Your task to perform on an android device: set the stopwatch Image 0: 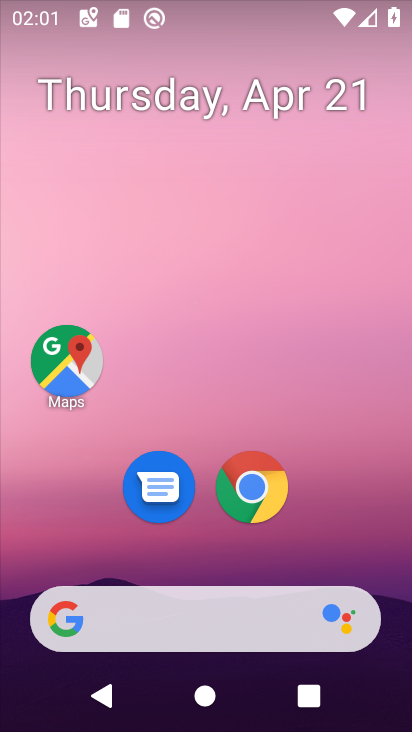
Step 0: drag from (211, 563) to (232, 271)
Your task to perform on an android device: set the stopwatch Image 1: 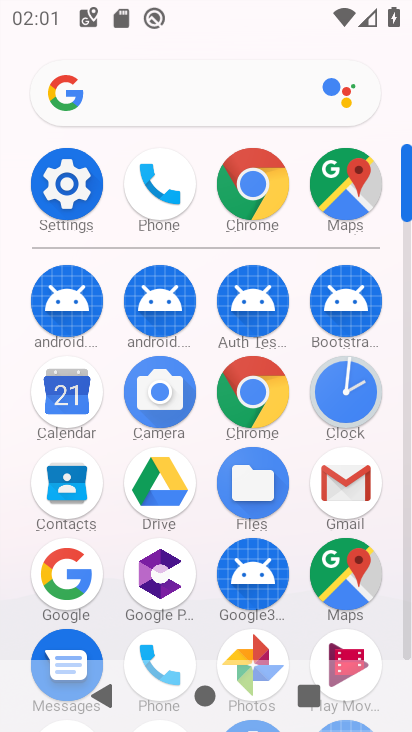
Step 1: click (352, 388)
Your task to perform on an android device: set the stopwatch Image 2: 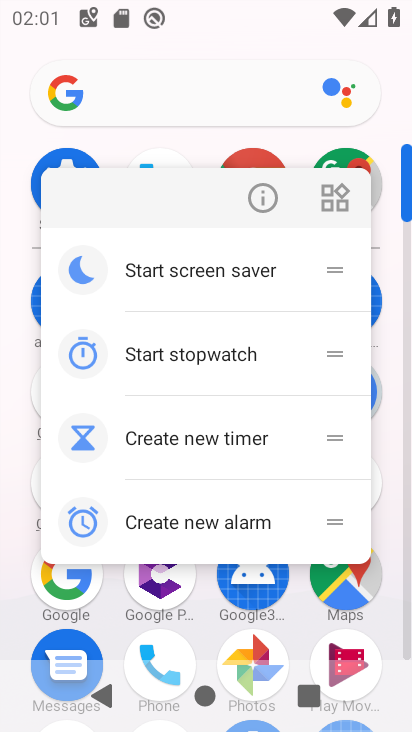
Step 2: click (263, 198)
Your task to perform on an android device: set the stopwatch Image 3: 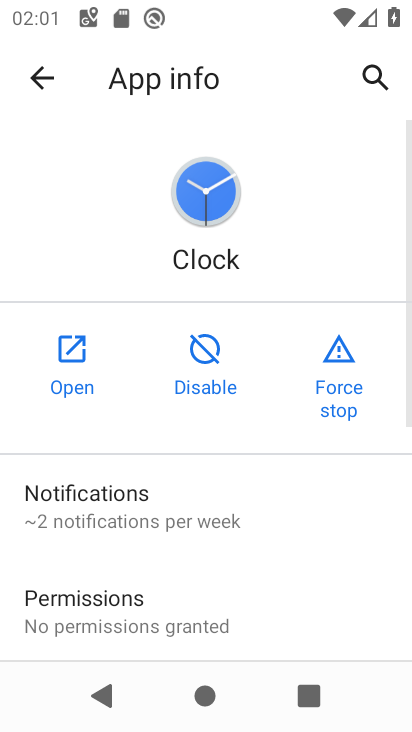
Step 3: click (90, 346)
Your task to perform on an android device: set the stopwatch Image 4: 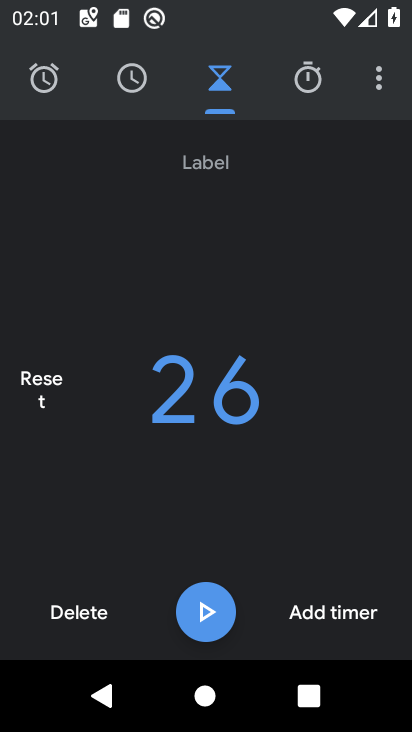
Step 4: click (321, 93)
Your task to perform on an android device: set the stopwatch Image 5: 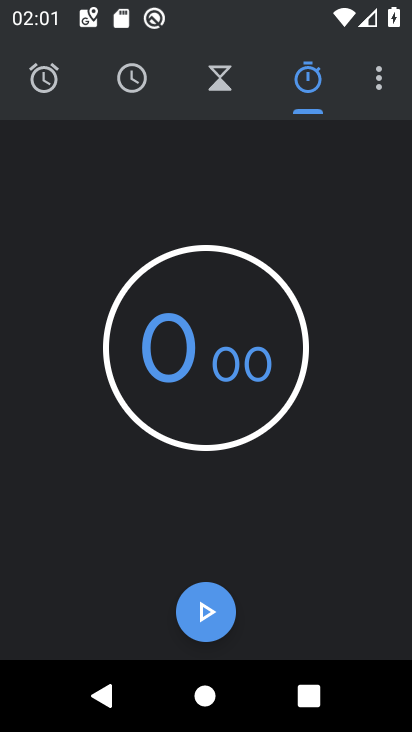
Step 5: drag from (246, 564) to (253, 348)
Your task to perform on an android device: set the stopwatch Image 6: 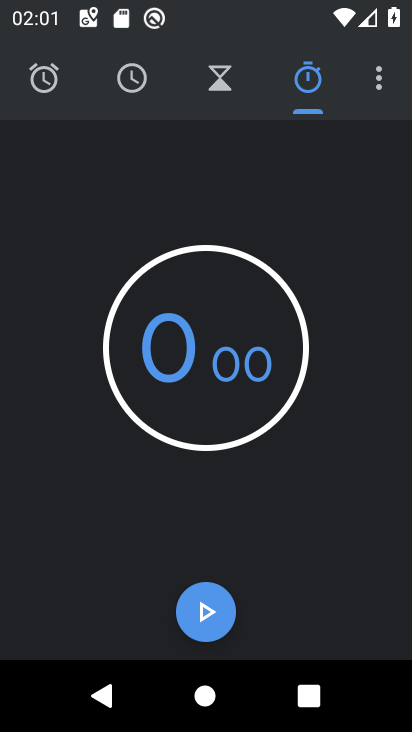
Step 6: click (207, 606)
Your task to perform on an android device: set the stopwatch Image 7: 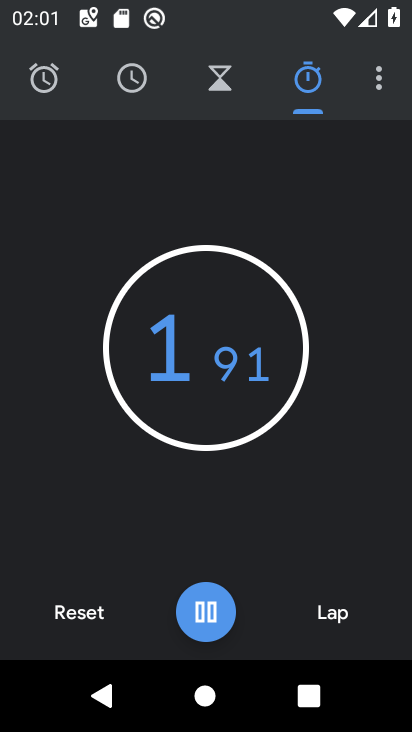
Step 7: drag from (264, 519) to (322, 352)
Your task to perform on an android device: set the stopwatch Image 8: 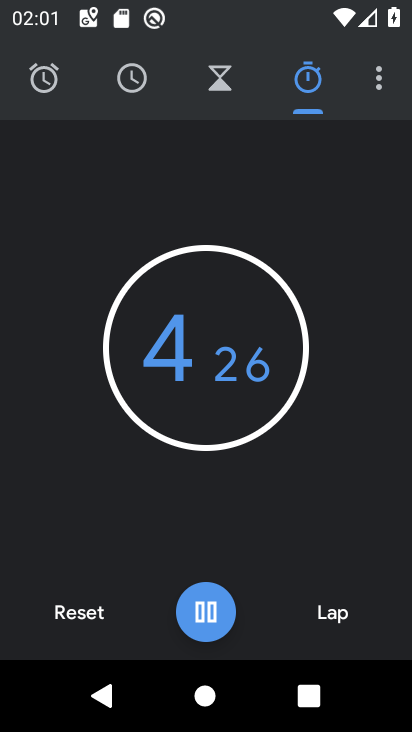
Step 8: click (277, 327)
Your task to perform on an android device: set the stopwatch Image 9: 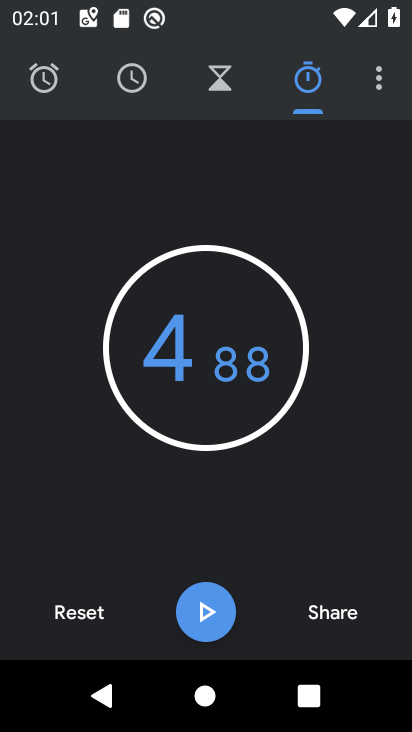
Step 9: click (194, 624)
Your task to perform on an android device: set the stopwatch Image 10: 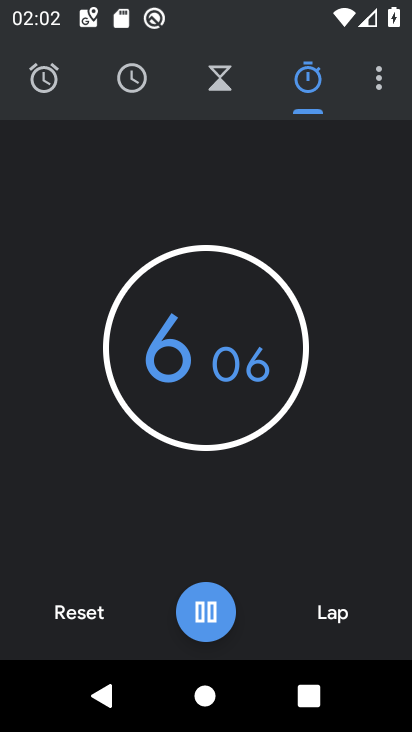
Step 10: task complete